Your task to perform on an android device: change the clock display to digital Image 0: 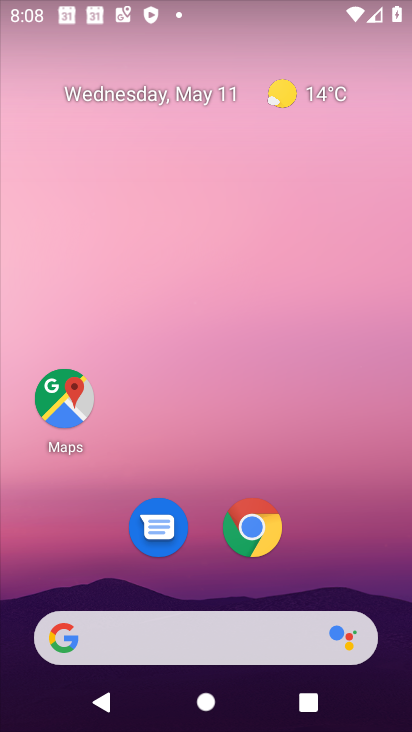
Step 0: drag from (203, 579) to (251, 199)
Your task to perform on an android device: change the clock display to digital Image 1: 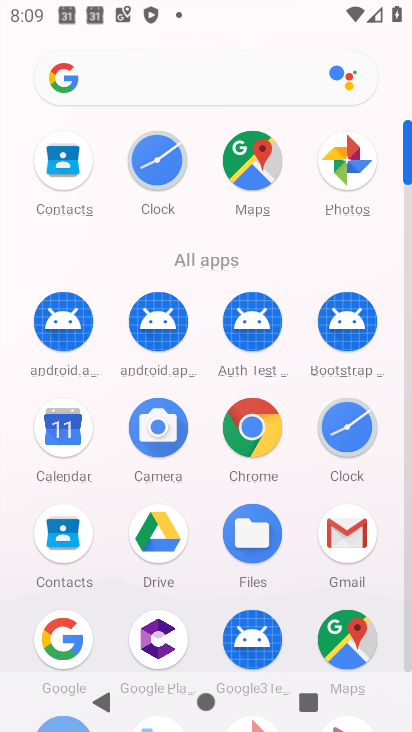
Step 1: click (149, 159)
Your task to perform on an android device: change the clock display to digital Image 2: 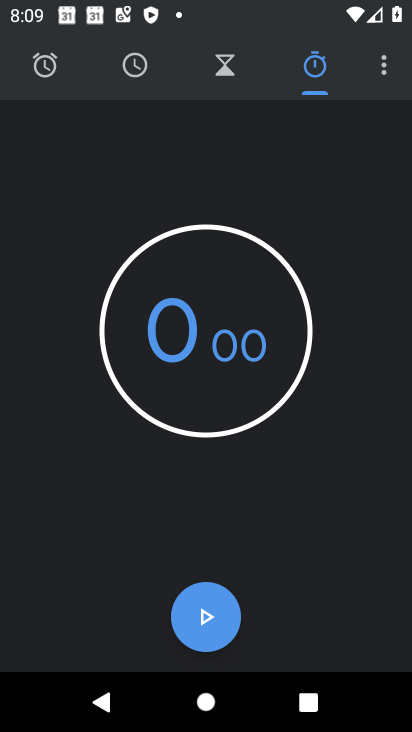
Step 2: click (377, 55)
Your task to perform on an android device: change the clock display to digital Image 3: 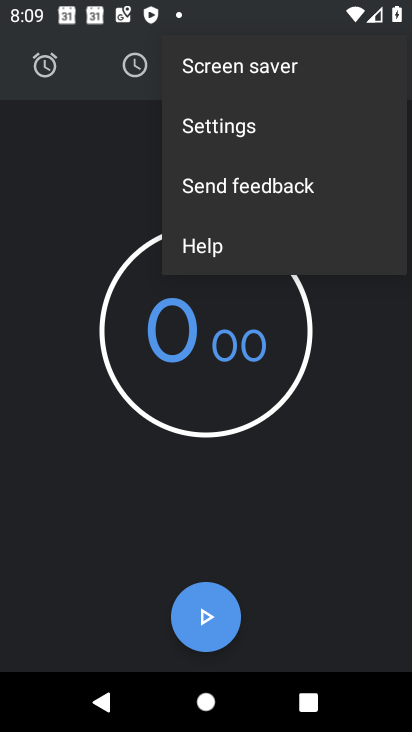
Step 3: click (306, 152)
Your task to perform on an android device: change the clock display to digital Image 4: 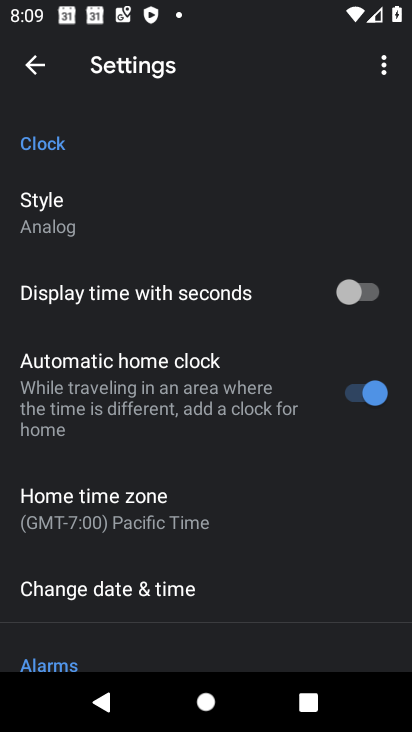
Step 4: click (215, 203)
Your task to perform on an android device: change the clock display to digital Image 5: 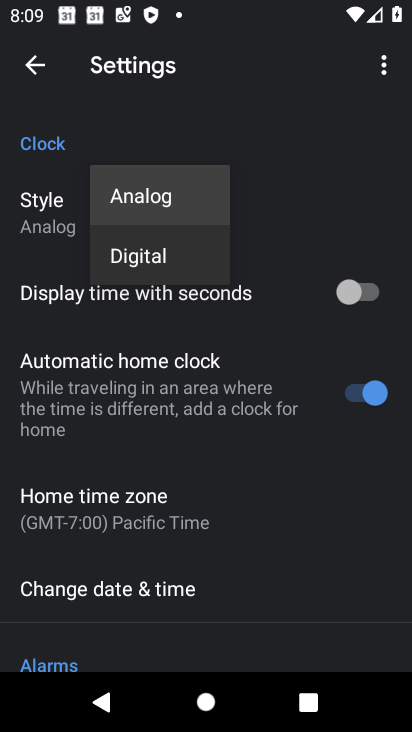
Step 5: click (142, 269)
Your task to perform on an android device: change the clock display to digital Image 6: 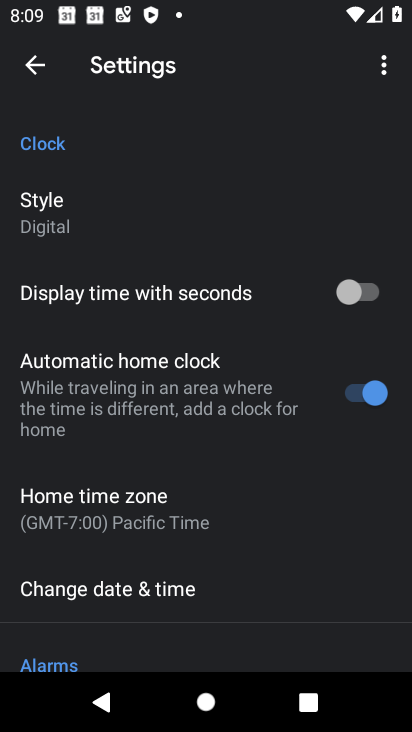
Step 6: task complete